Your task to perform on an android device: check data usage Image 0: 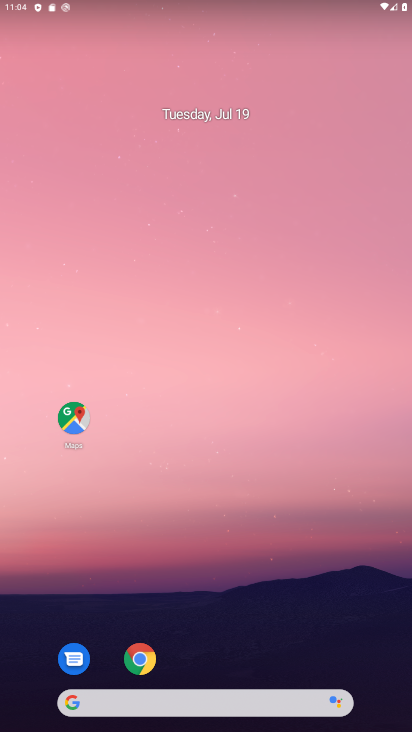
Step 0: drag from (389, 4) to (370, 243)
Your task to perform on an android device: check data usage Image 1: 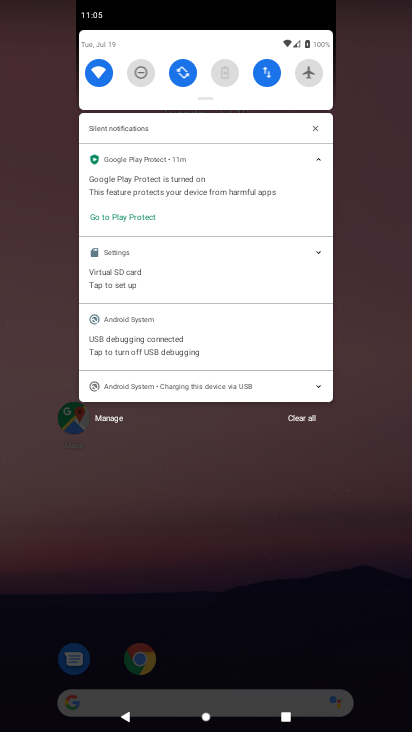
Step 1: click (265, 74)
Your task to perform on an android device: check data usage Image 2: 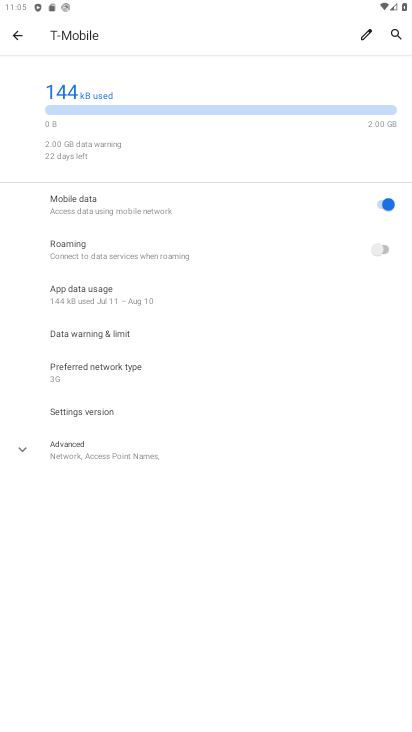
Step 2: task complete